Your task to perform on an android device: check data usage Image 0: 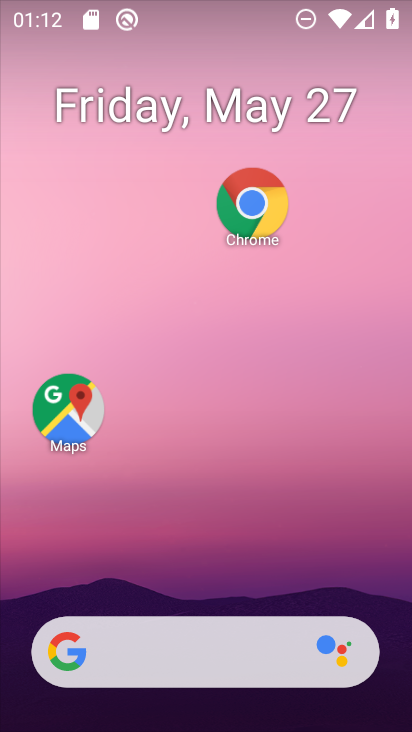
Step 0: drag from (180, 519) to (258, 120)
Your task to perform on an android device: check data usage Image 1: 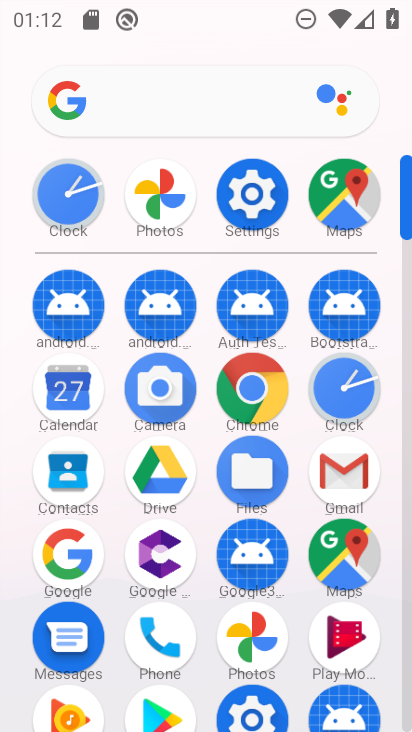
Step 1: click (262, 185)
Your task to perform on an android device: check data usage Image 2: 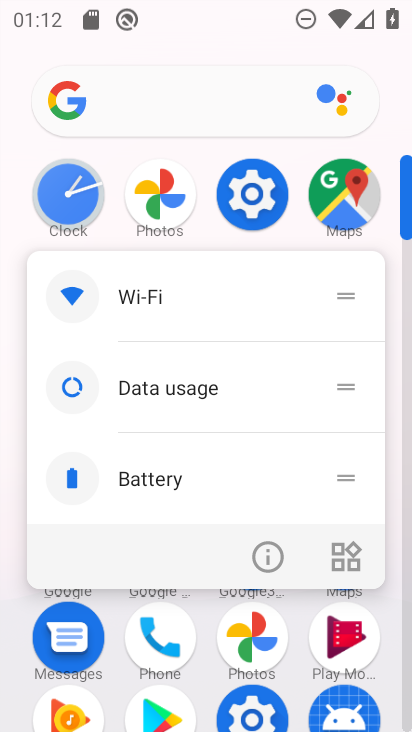
Step 2: click (275, 557)
Your task to perform on an android device: check data usage Image 3: 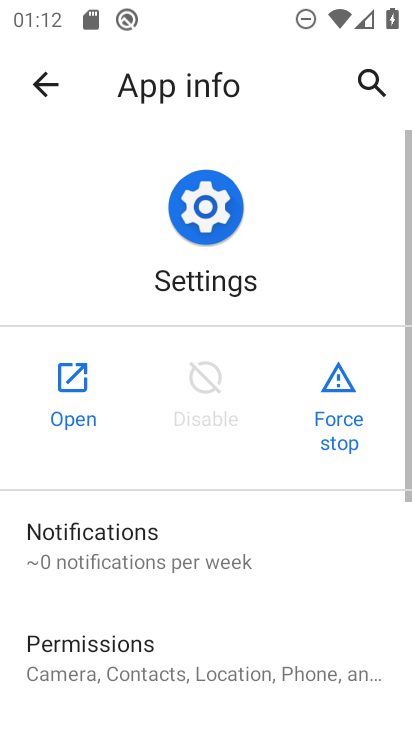
Step 3: click (83, 385)
Your task to perform on an android device: check data usage Image 4: 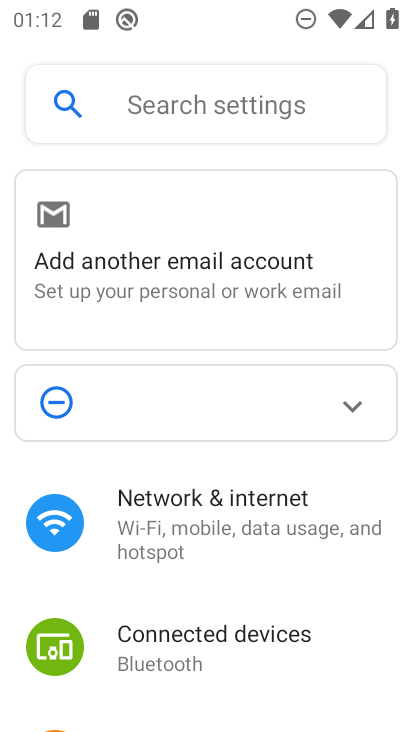
Step 4: click (162, 486)
Your task to perform on an android device: check data usage Image 5: 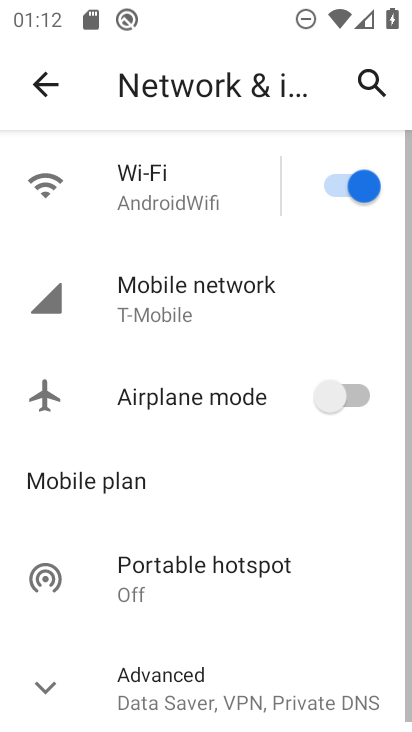
Step 5: click (187, 290)
Your task to perform on an android device: check data usage Image 6: 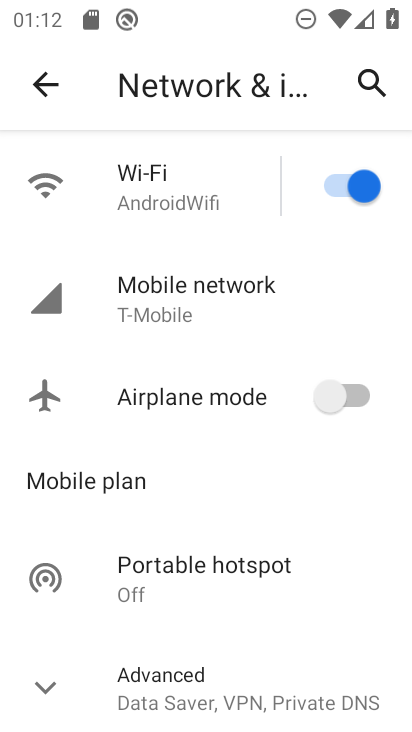
Step 6: task complete